Your task to perform on an android device: Search for vegetarian restaurants on Maps Image 0: 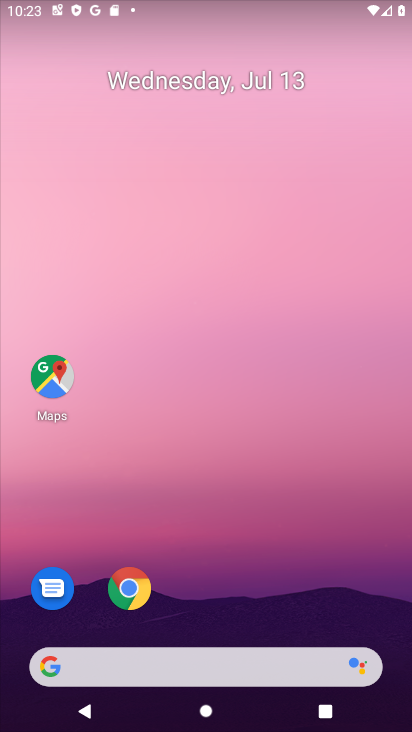
Step 0: drag from (233, 585) to (247, 113)
Your task to perform on an android device: Search for vegetarian restaurants on Maps Image 1: 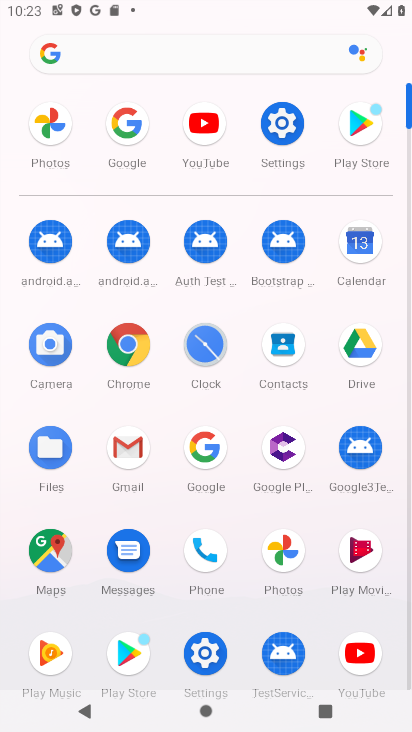
Step 1: click (41, 555)
Your task to perform on an android device: Search for vegetarian restaurants on Maps Image 2: 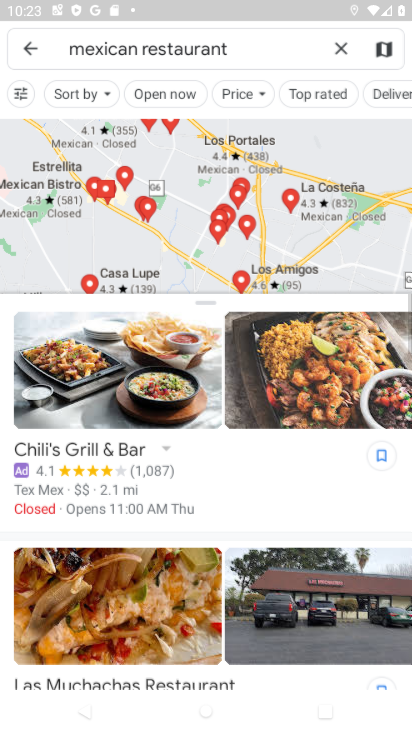
Step 2: click (330, 50)
Your task to perform on an android device: Search for vegetarian restaurants on Maps Image 3: 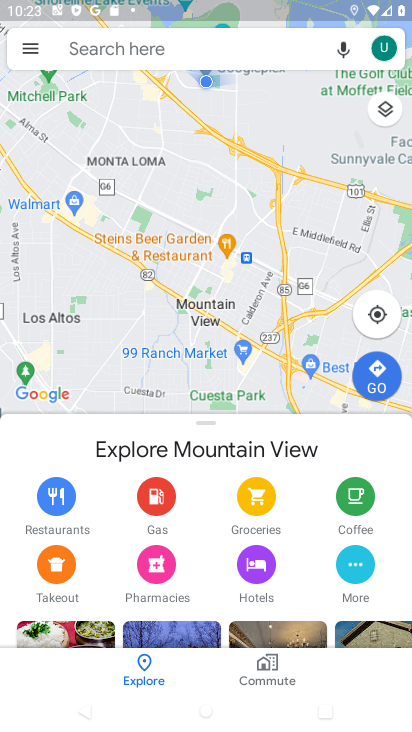
Step 3: click (94, 53)
Your task to perform on an android device: Search for vegetarian restaurants on Maps Image 4: 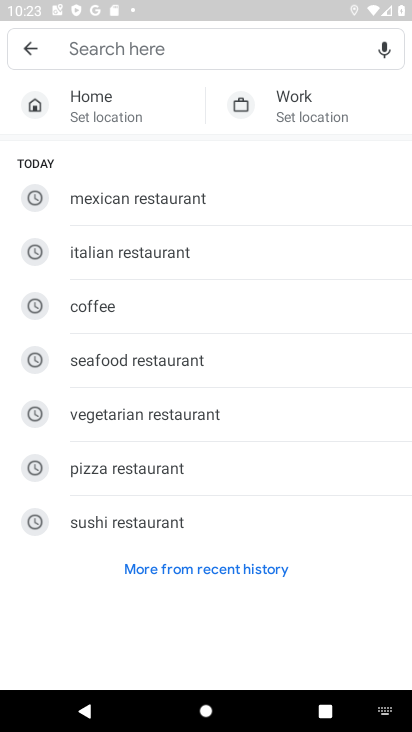
Step 4: click (121, 411)
Your task to perform on an android device: Search for vegetarian restaurants on Maps Image 5: 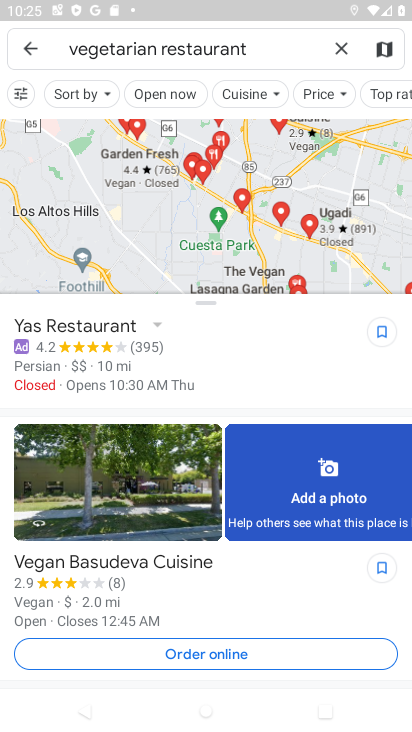
Step 5: task complete